Your task to perform on an android device: turn off sleep mode Image 0: 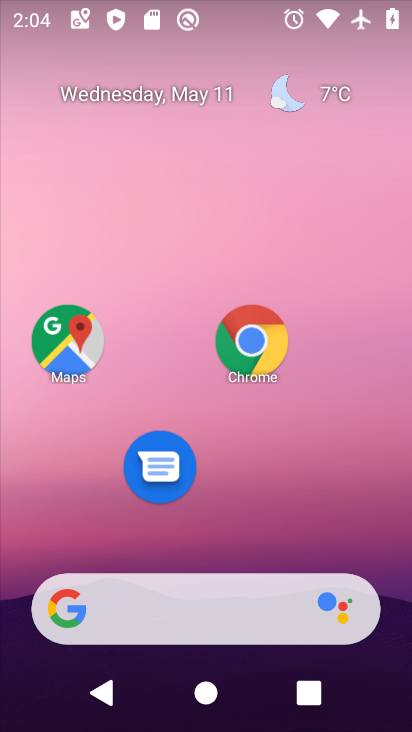
Step 0: drag from (148, 605) to (266, 133)
Your task to perform on an android device: turn off sleep mode Image 1: 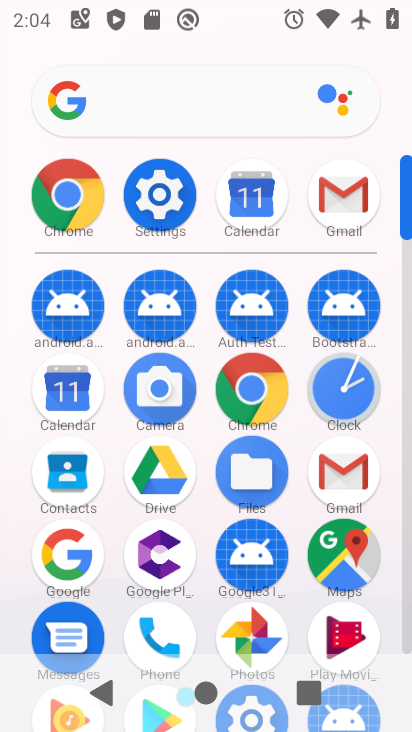
Step 1: click (160, 177)
Your task to perform on an android device: turn off sleep mode Image 2: 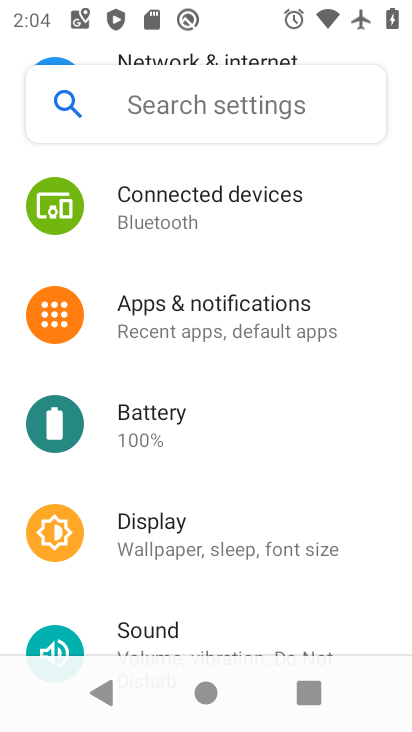
Step 2: drag from (268, 231) to (249, 535)
Your task to perform on an android device: turn off sleep mode Image 3: 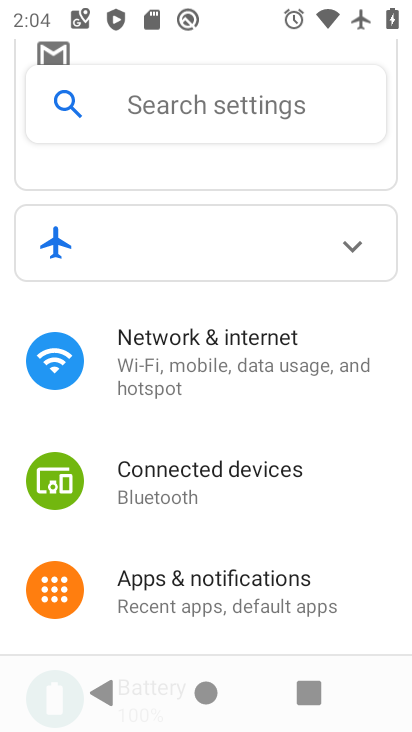
Step 3: drag from (226, 570) to (333, 140)
Your task to perform on an android device: turn off sleep mode Image 4: 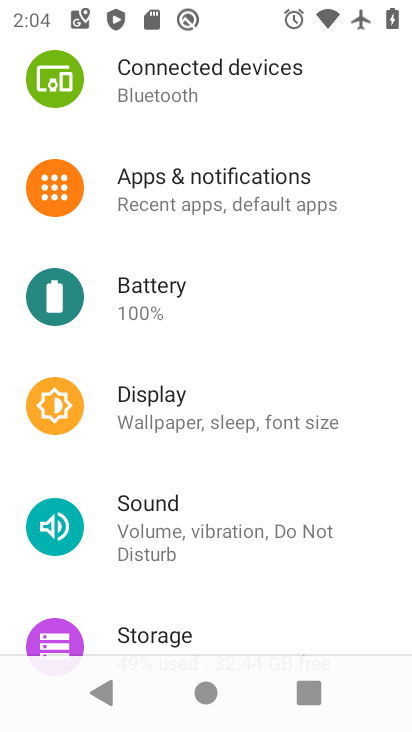
Step 4: click (256, 428)
Your task to perform on an android device: turn off sleep mode Image 5: 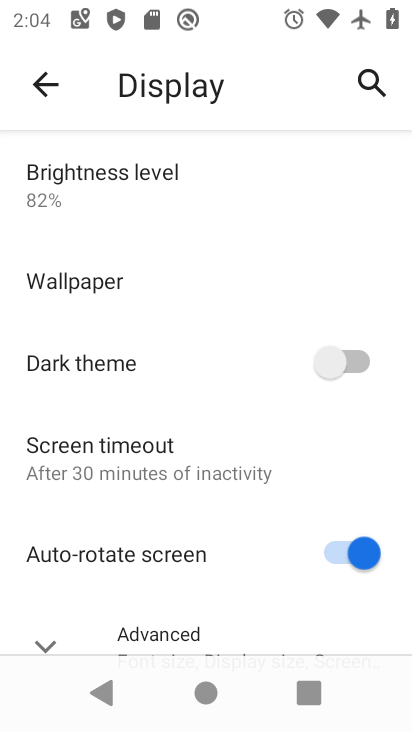
Step 5: task complete